Your task to perform on an android device: turn off priority inbox in the gmail app Image 0: 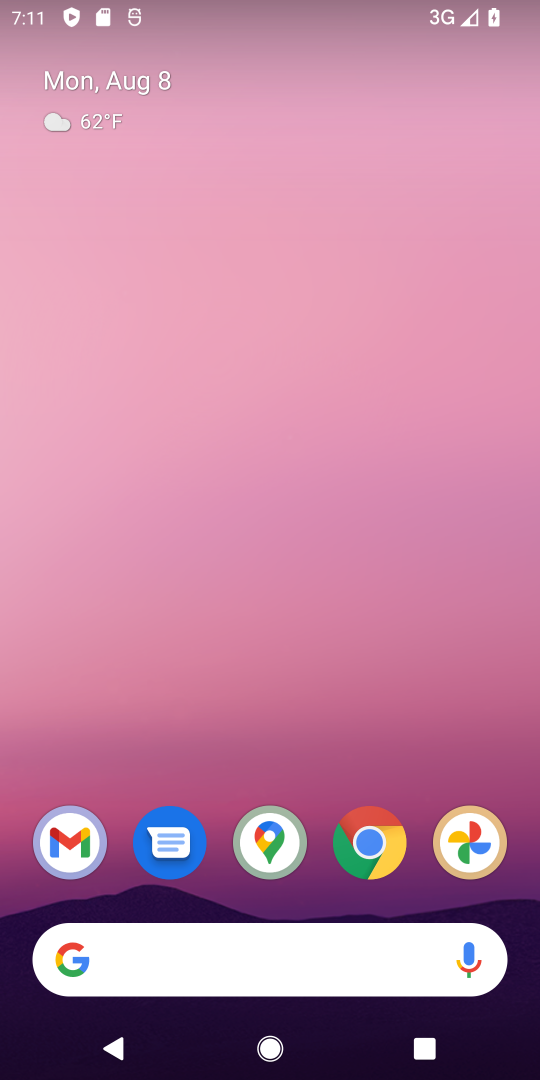
Step 0: drag from (287, 892) to (351, 11)
Your task to perform on an android device: turn off priority inbox in the gmail app Image 1: 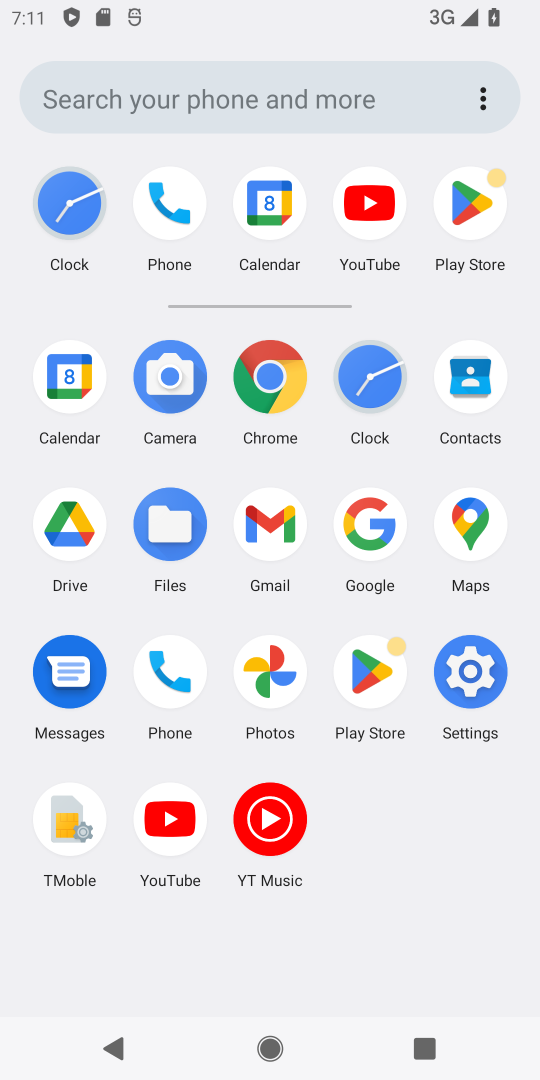
Step 1: click (272, 518)
Your task to perform on an android device: turn off priority inbox in the gmail app Image 2: 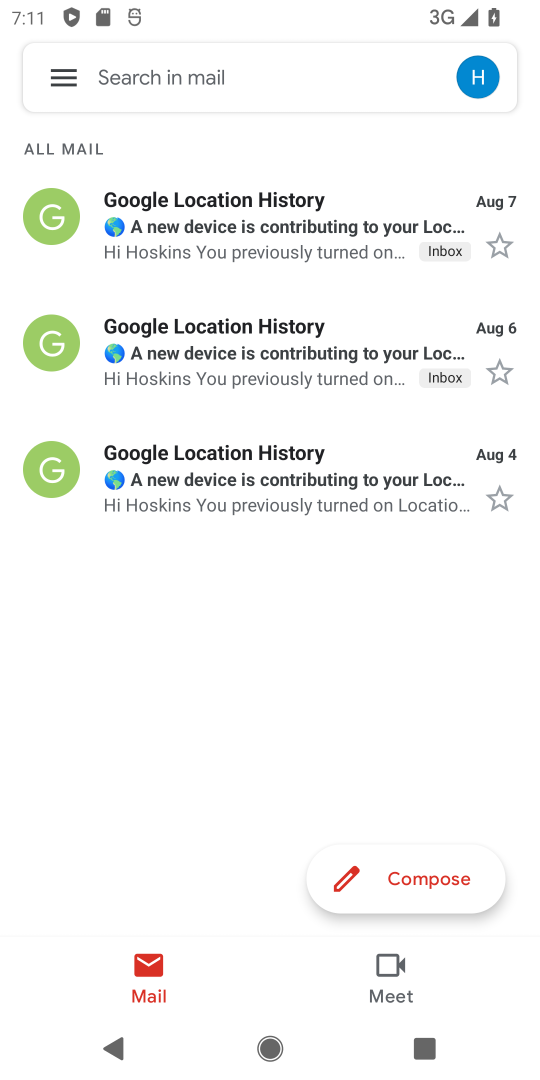
Step 2: click (67, 70)
Your task to perform on an android device: turn off priority inbox in the gmail app Image 3: 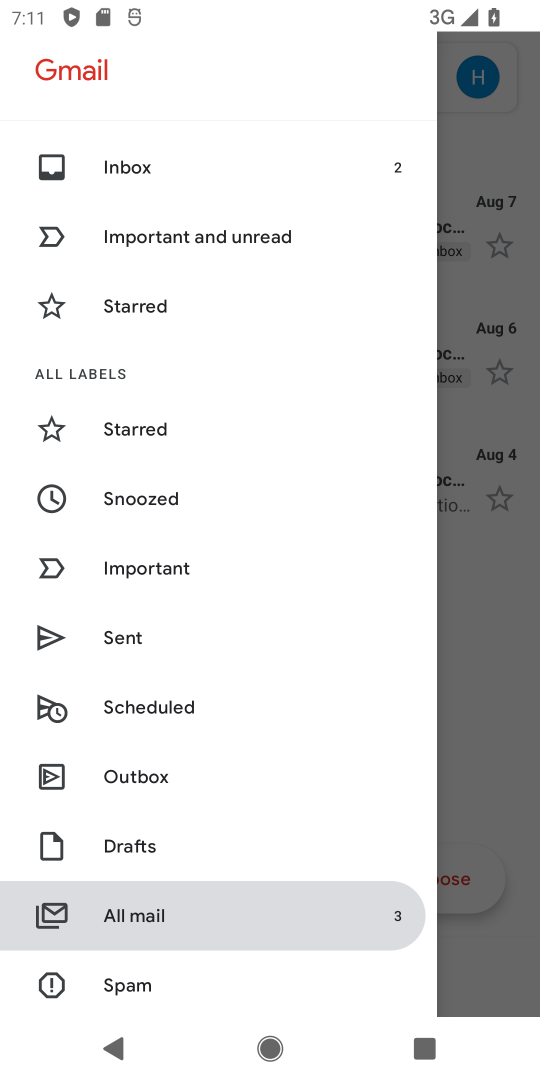
Step 3: drag from (96, 706) to (97, 120)
Your task to perform on an android device: turn off priority inbox in the gmail app Image 4: 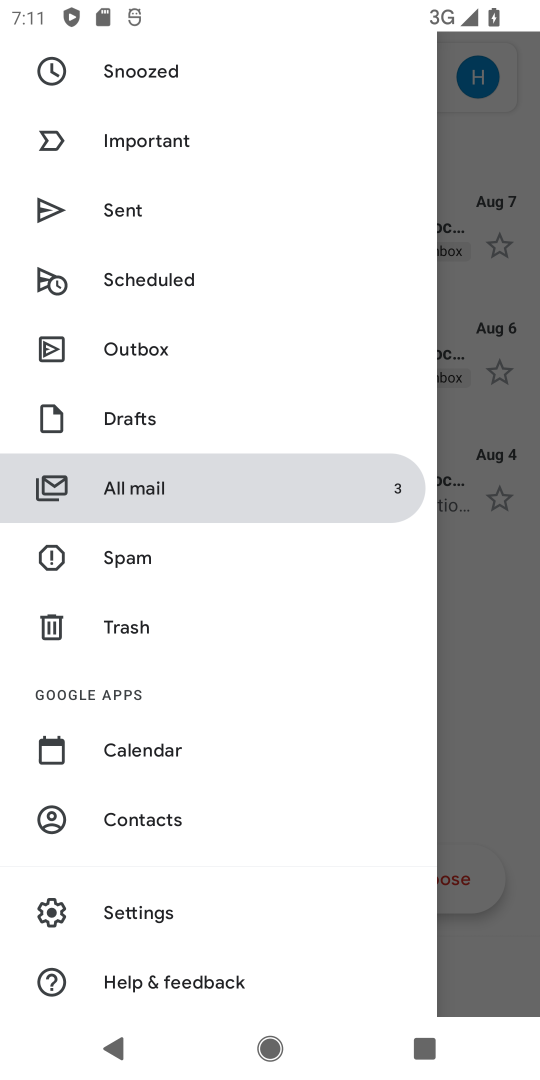
Step 4: click (150, 896)
Your task to perform on an android device: turn off priority inbox in the gmail app Image 5: 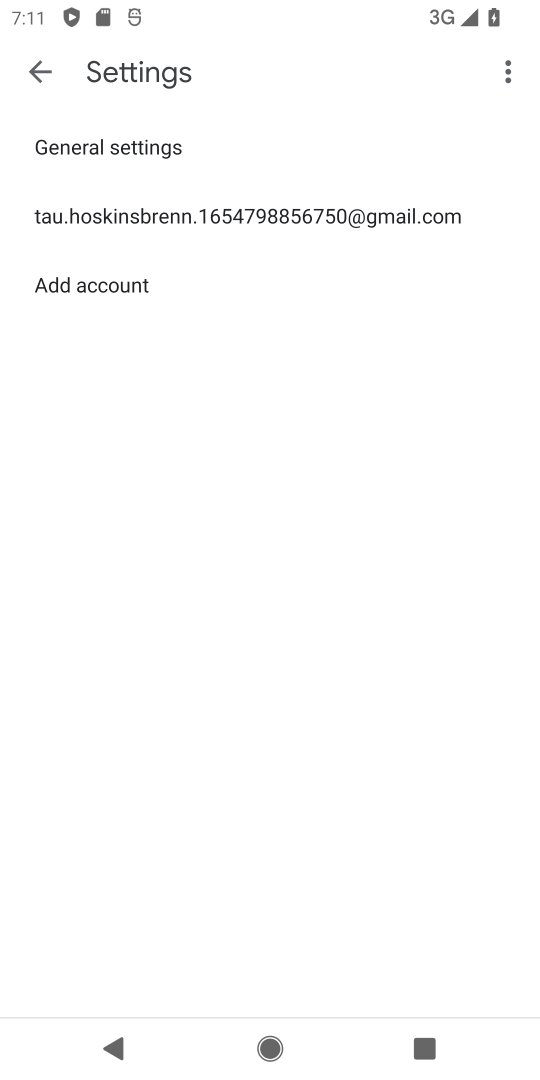
Step 5: click (91, 194)
Your task to perform on an android device: turn off priority inbox in the gmail app Image 6: 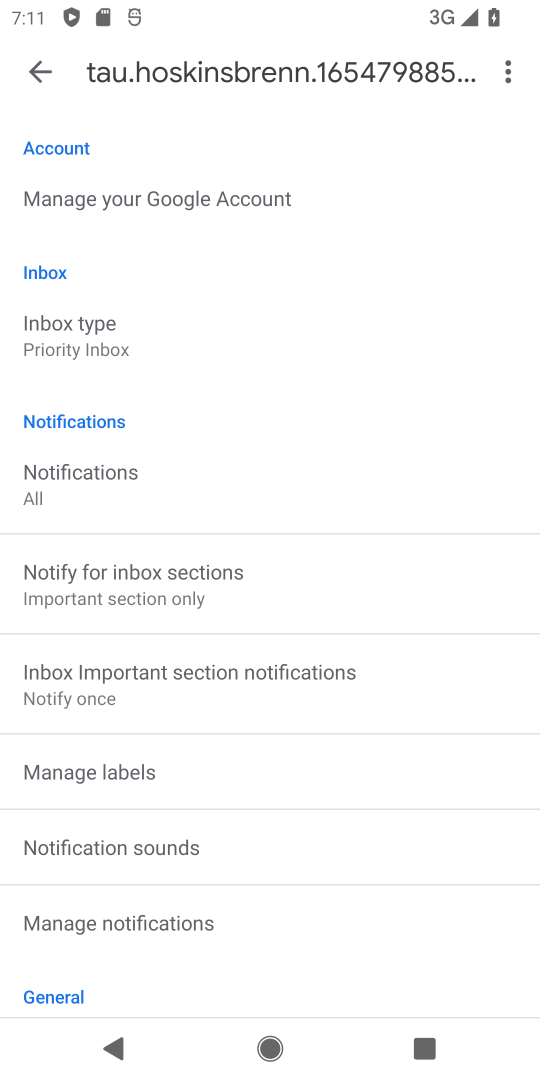
Step 6: click (68, 348)
Your task to perform on an android device: turn off priority inbox in the gmail app Image 7: 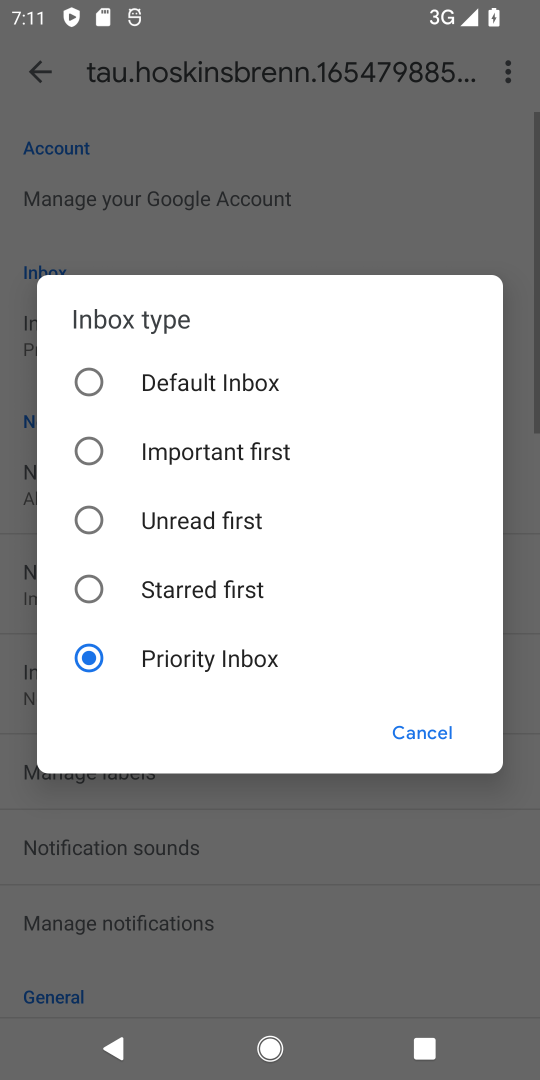
Step 7: click (92, 368)
Your task to perform on an android device: turn off priority inbox in the gmail app Image 8: 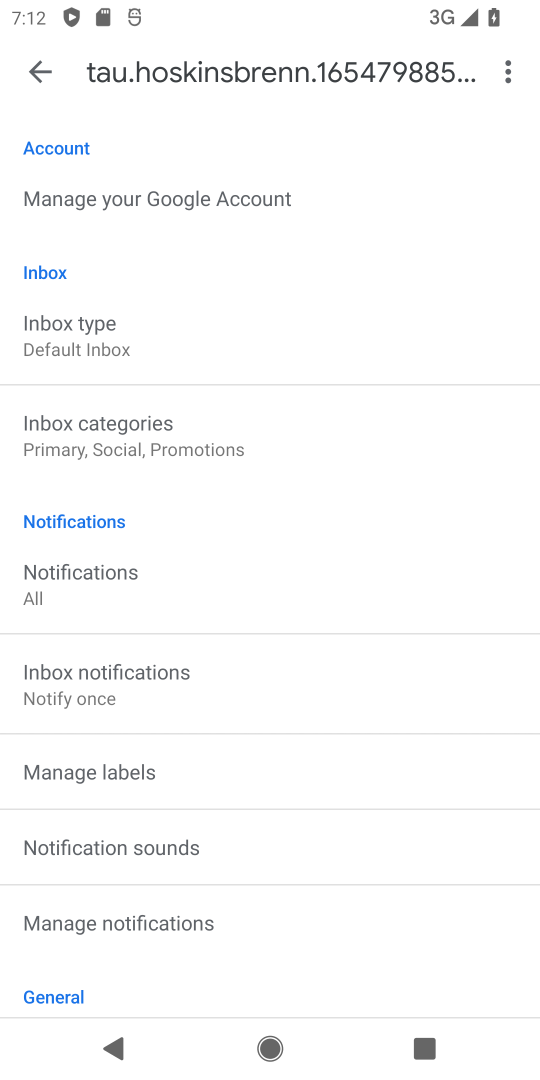
Step 8: click (92, 335)
Your task to perform on an android device: turn off priority inbox in the gmail app Image 9: 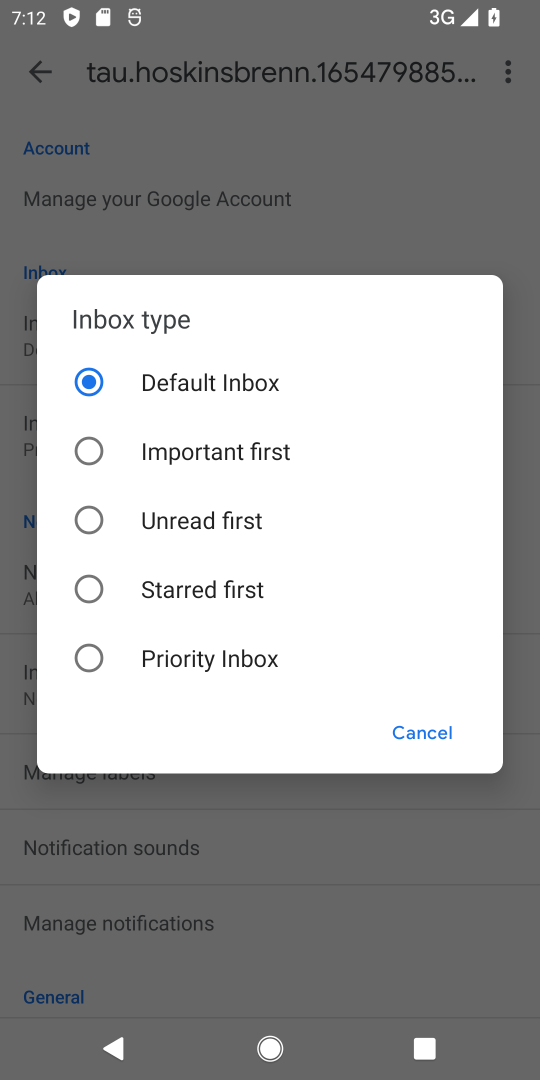
Step 9: task complete